Your task to perform on an android device: turn pop-ups on in chrome Image 0: 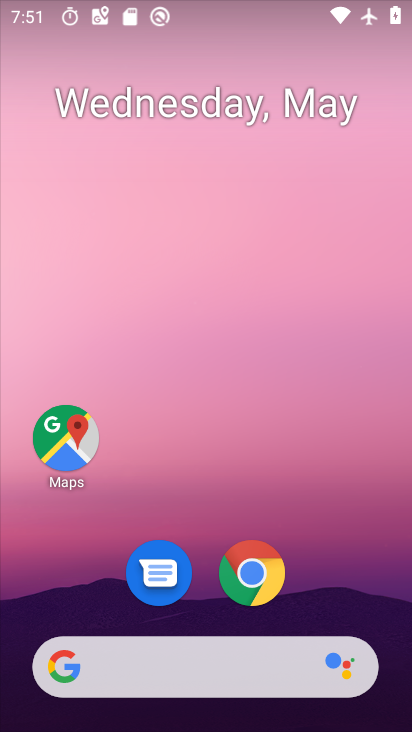
Step 0: click (240, 576)
Your task to perform on an android device: turn pop-ups on in chrome Image 1: 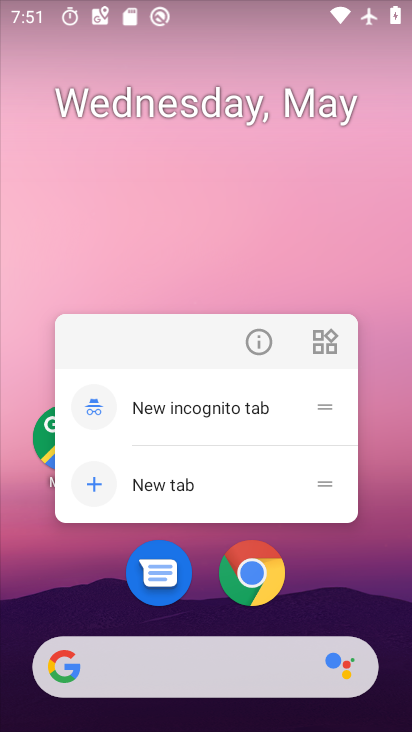
Step 1: click (254, 562)
Your task to perform on an android device: turn pop-ups on in chrome Image 2: 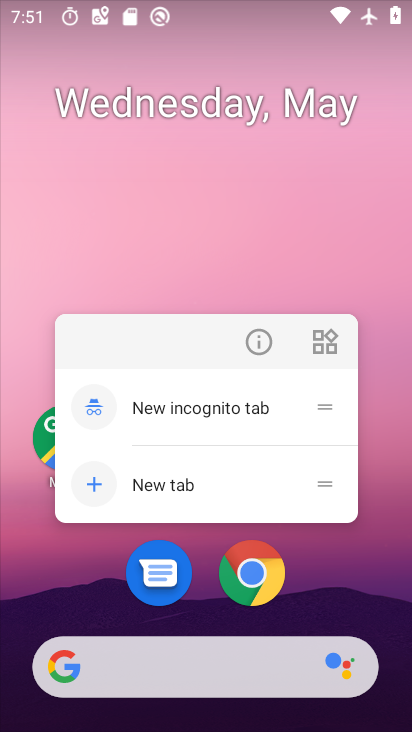
Step 2: click (258, 571)
Your task to perform on an android device: turn pop-ups on in chrome Image 3: 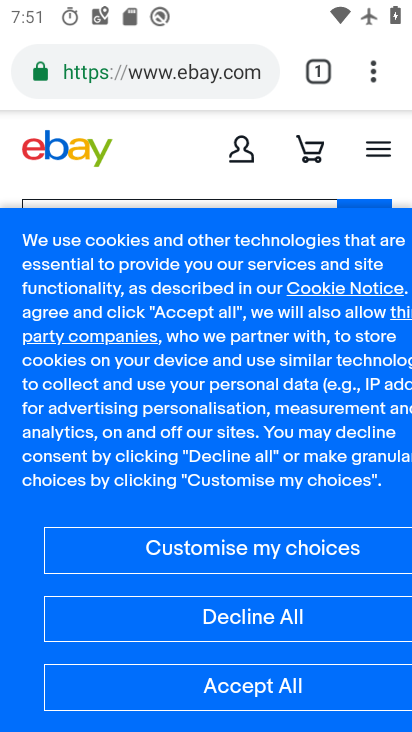
Step 3: click (372, 81)
Your task to perform on an android device: turn pop-ups on in chrome Image 4: 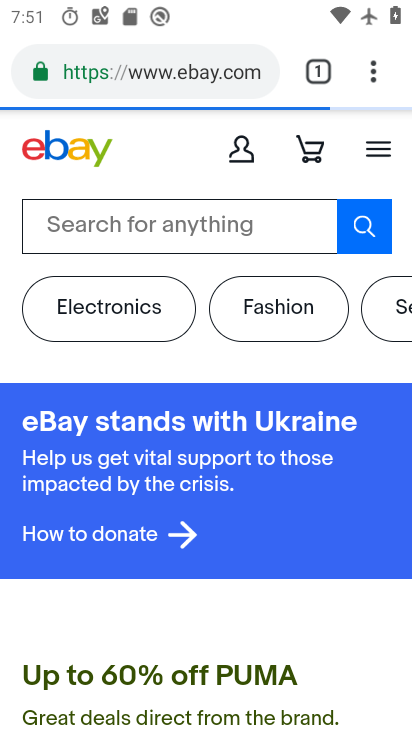
Step 4: click (372, 81)
Your task to perform on an android device: turn pop-ups on in chrome Image 5: 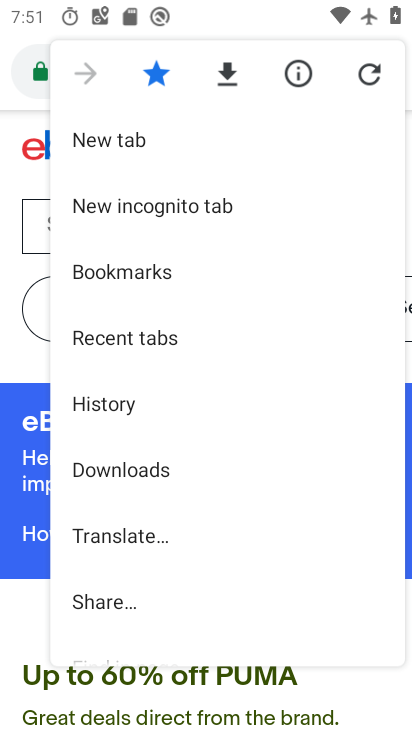
Step 5: drag from (263, 586) to (213, 280)
Your task to perform on an android device: turn pop-ups on in chrome Image 6: 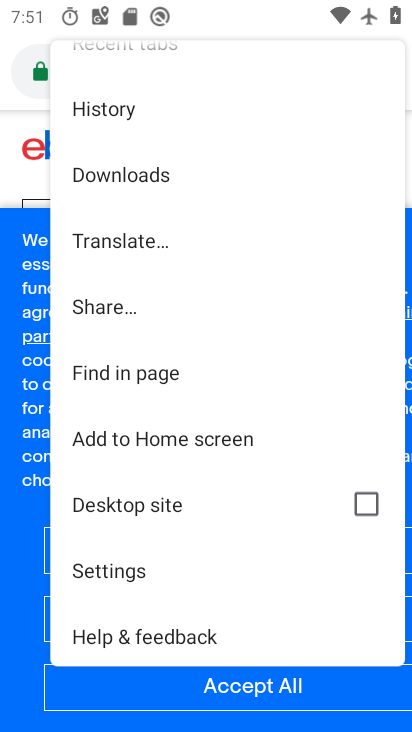
Step 6: click (143, 558)
Your task to perform on an android device: turn pop-ups on in chrome Image 7: 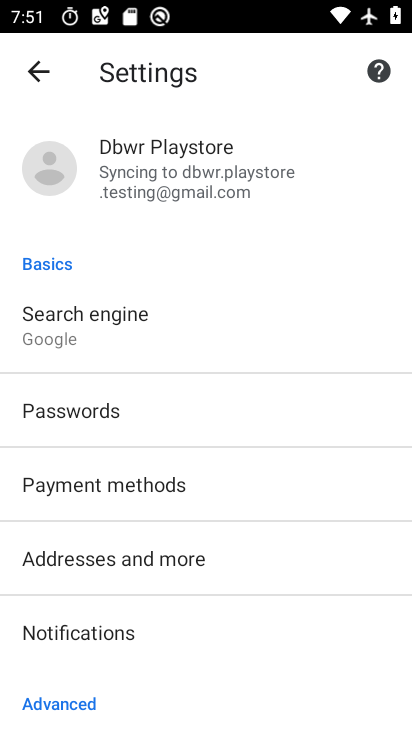
Step 7: drag from (170, 613) to (180, 379)
Your task to perform on an android device: turn pop-ups on in chrome Image 8: 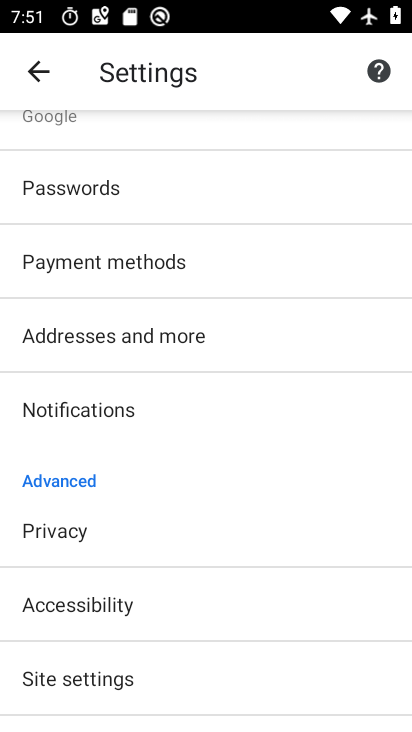
Step 8: click (141, 687)
Your task to perform on an android device: turn pop-ups on in chrome Image 9: 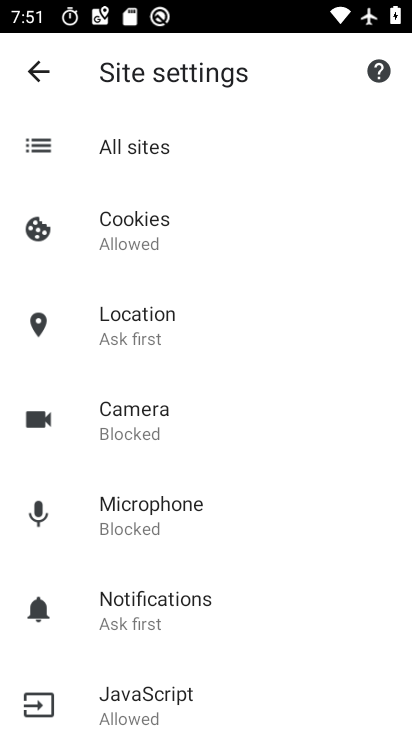
Step 9: drag from (166, 644) to (188, 439)
Your task to perform on an android device: turn pop-ups on in chrome Image 10: 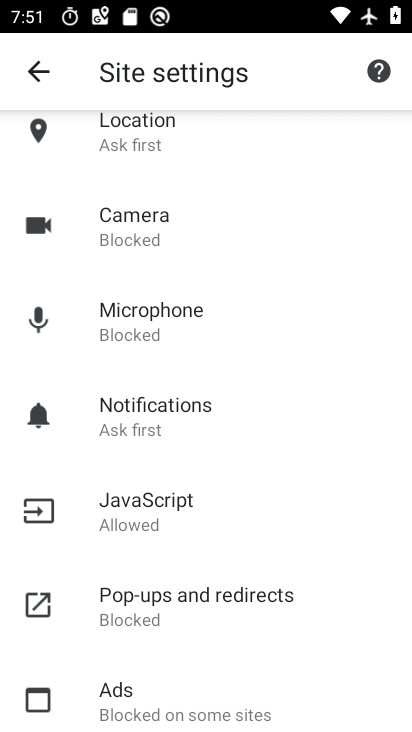
Step 10: click (190, 591)
Your task to perform on an android device: turn pop-ups on in chrome Image 11: 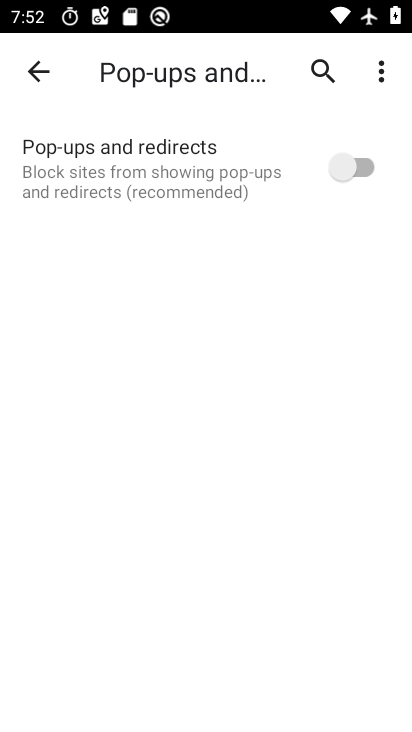
Step 11: click (351, 173)
Your task to perform on an android device: turn pop-ups on in chrome Image 12: 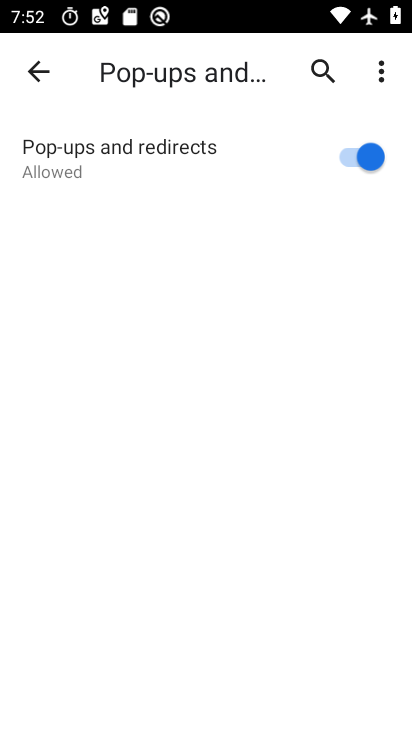
Step 12: task complete